Your task to perform on an android device: move a message to another label in the gmail app Image 0: 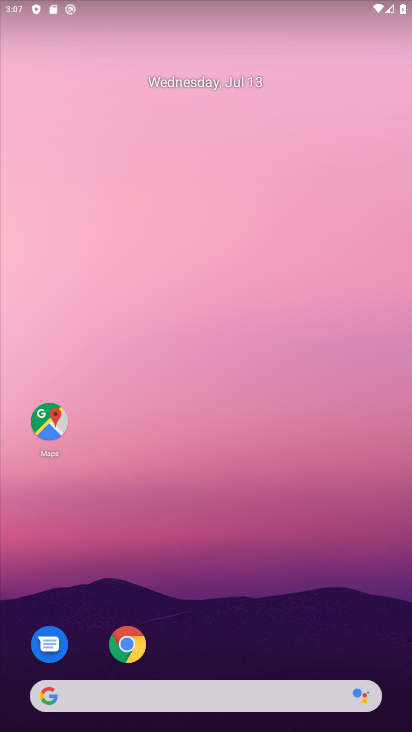
Step 0: drag from (238, 608) to (271, 147)
Your task to perform on an android device: move a message to another label in the gmail app Image 1: 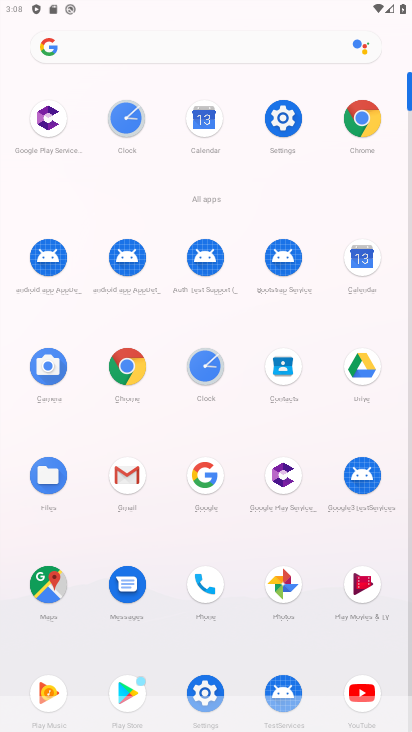
Step 1: click (119, 471)
Your task to perform on an android device: move a message to another label in the gmail app Image 2: 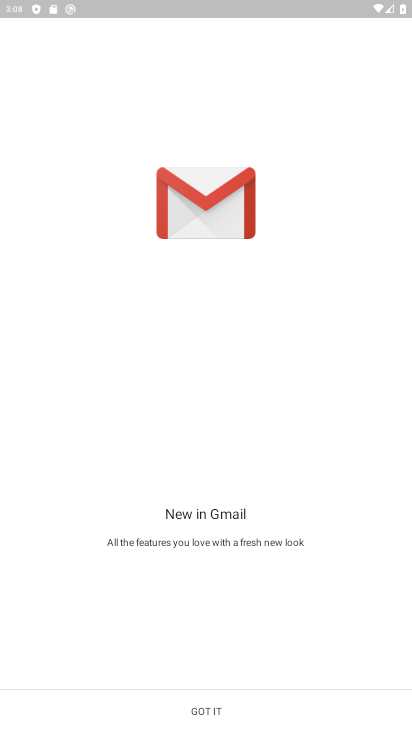
Step 2: click (214, 693)
Your task to perform on an android device: move a message to another label in the gmail app Image 3: 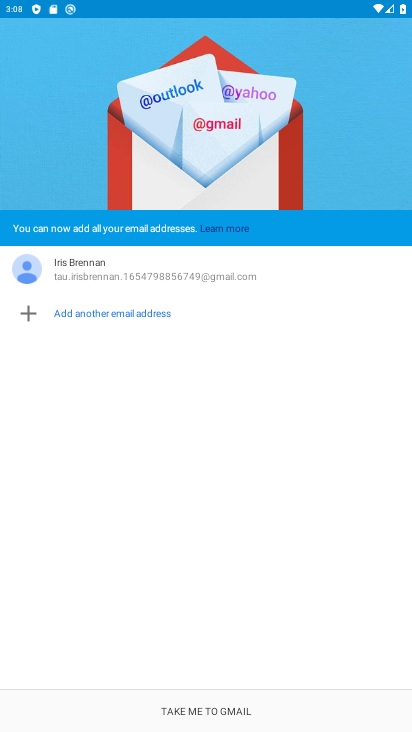
Step 3: click (215, 715)
Your task to perform on an android device: move a message to another label in the gmail app Image 4: 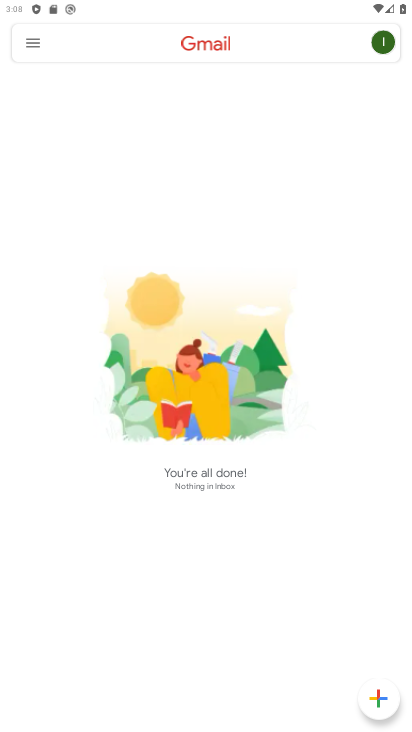
Step 4: click (35, 43)
Your task to perform on an android device: move a message to another label in the gmail app Image 5: 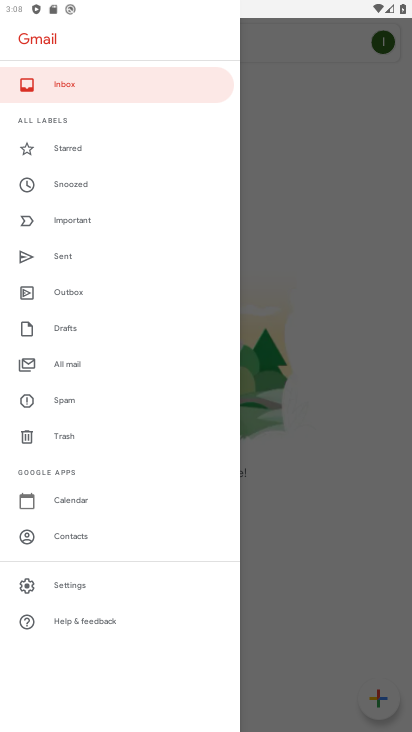
Step 5: click (86, 358)
Your task to perform on an android device: move a message to another label in the gmail app Image 6: 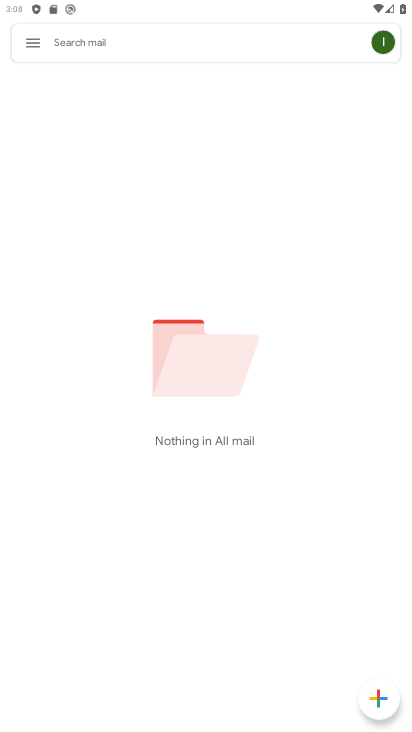
Step 6: task complete